Your task to perform on an android device: Open Google Chrome and open the bookmarks view Image 0: 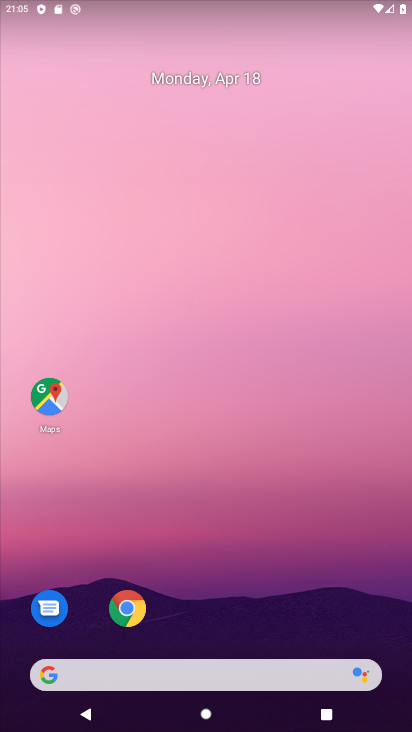
Step 0: click (124, 612)
Your task to perform on an android device: Open Google Chrome and open the bookmarks view Image 1: 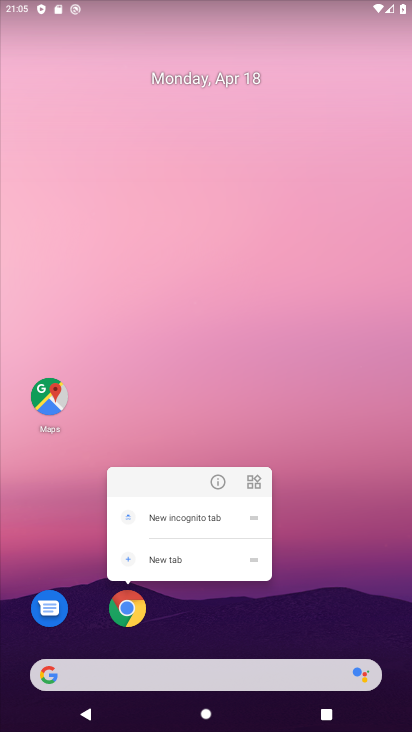
Step 1: click (258, 291)
Your task to perform on an android device: Open Google Chrome and open the bookmarks view Image 2: 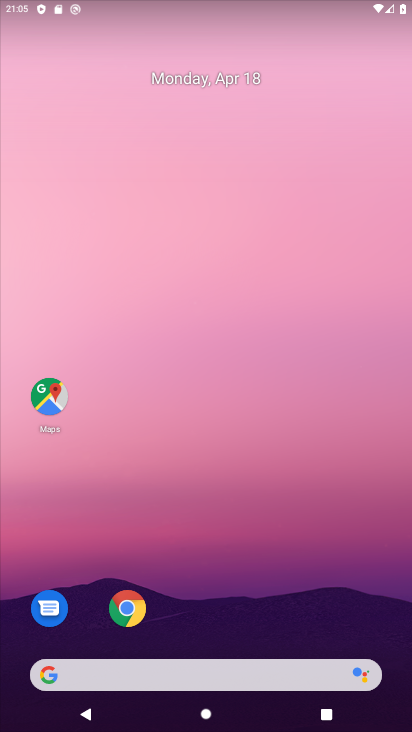
Step 2: click (128, 608)
Your task to perform on an android device: Open Google Chrome and open the bookmarks view Image 3: 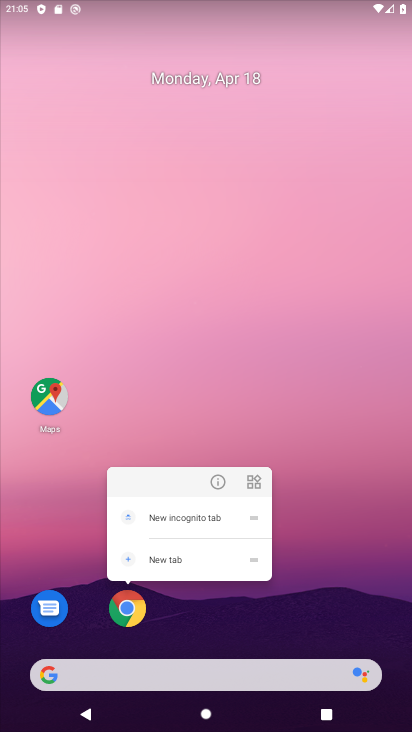
Step 3: click (128, 608)
Your task to perform on an android device: Open Google Chrome and open the bookmarks view Image 4: 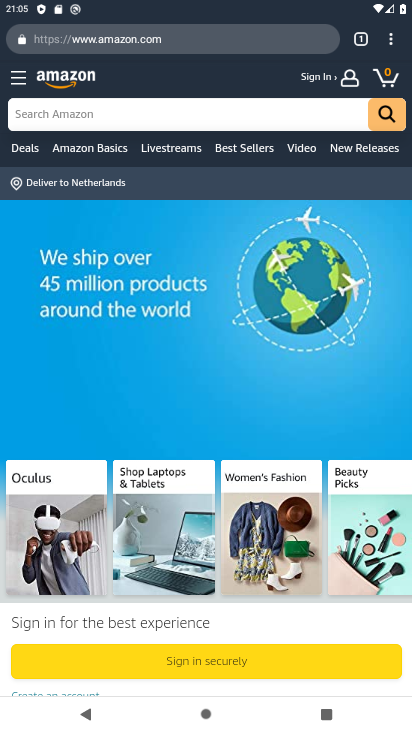
Step 4: click (388, 36)
Your task to perform on an android device: Open Google Chrome and open the bookmarks view Image 5: 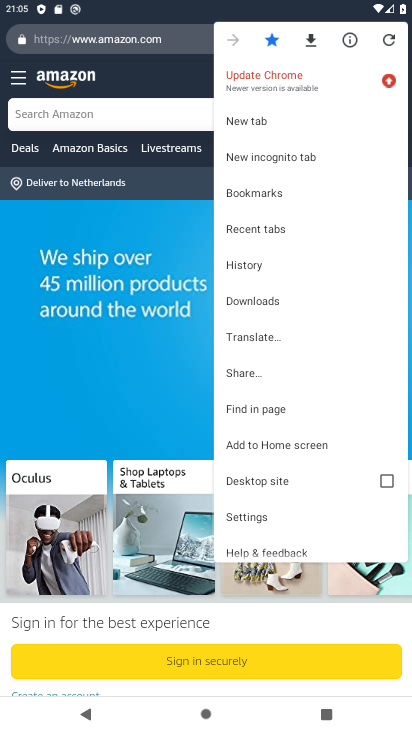
Step 5: click (288, 190)
Your task to perform on an android device: Open Google Chrome and open the bookmarks view Image 6: 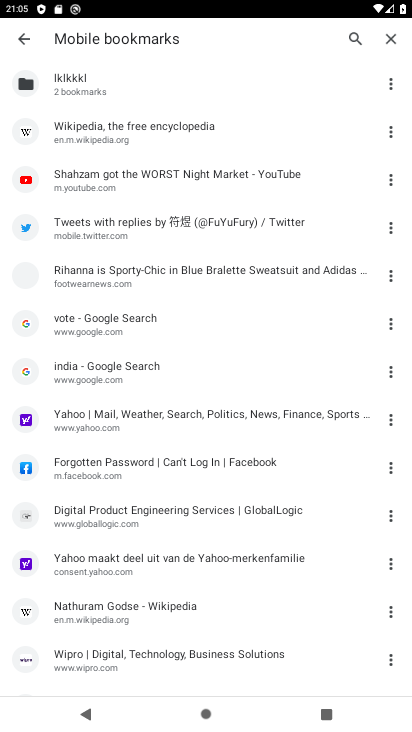
Step 6: click (87, 474)
Your task to perform on an android device: Open Google Chrome and open the bookmarks view Image 7: 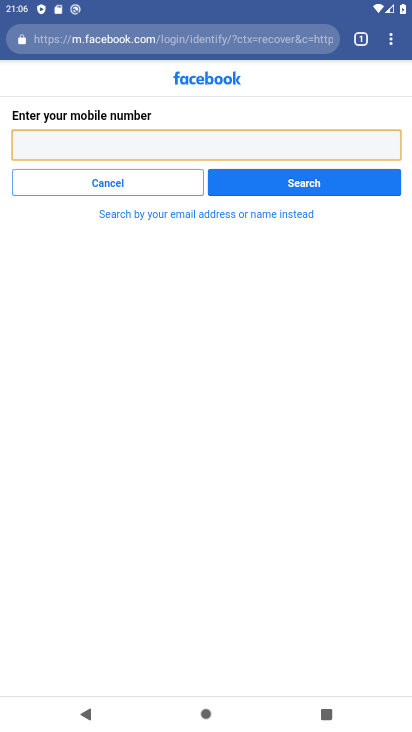
Step 7: task complete